Your task to perform on an android device: turn on airplane mode Image 0: 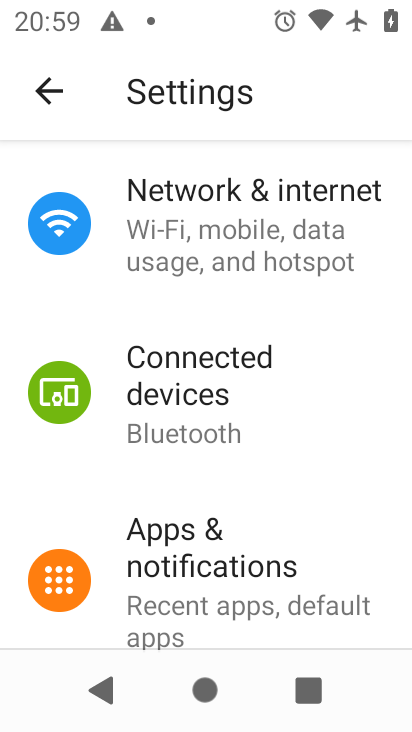
Step 0: drag from (222, 349) to (235, 577)
Your task to perform on an android device: turn on airplane mode Image 1: 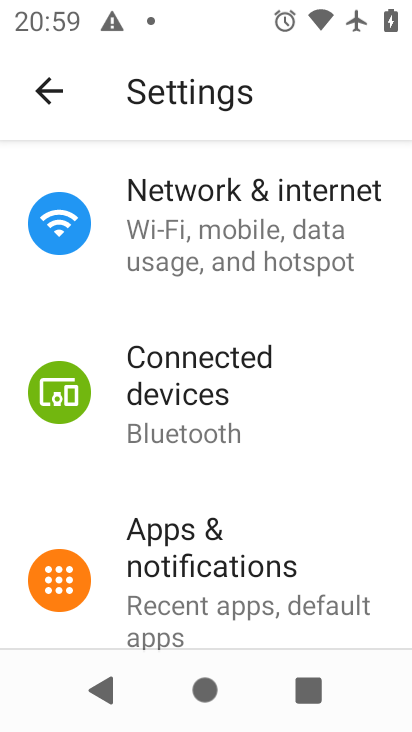
Step 1: click (210, 246)
Your task to perform on an android device: turn on airplane mode Image 2: 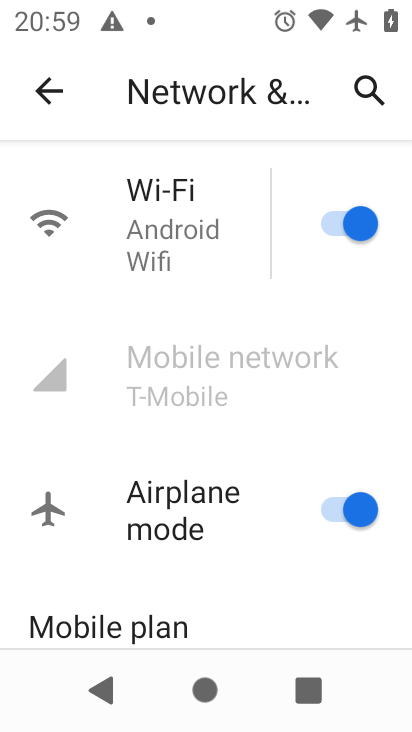
Step 2: task complete